Your task to perform on an android device: View the shopping cart on costco.com. Search for "rayovac triple a" on costco.com, select the first entry, add it to the cart, then select checkout. Image 0: 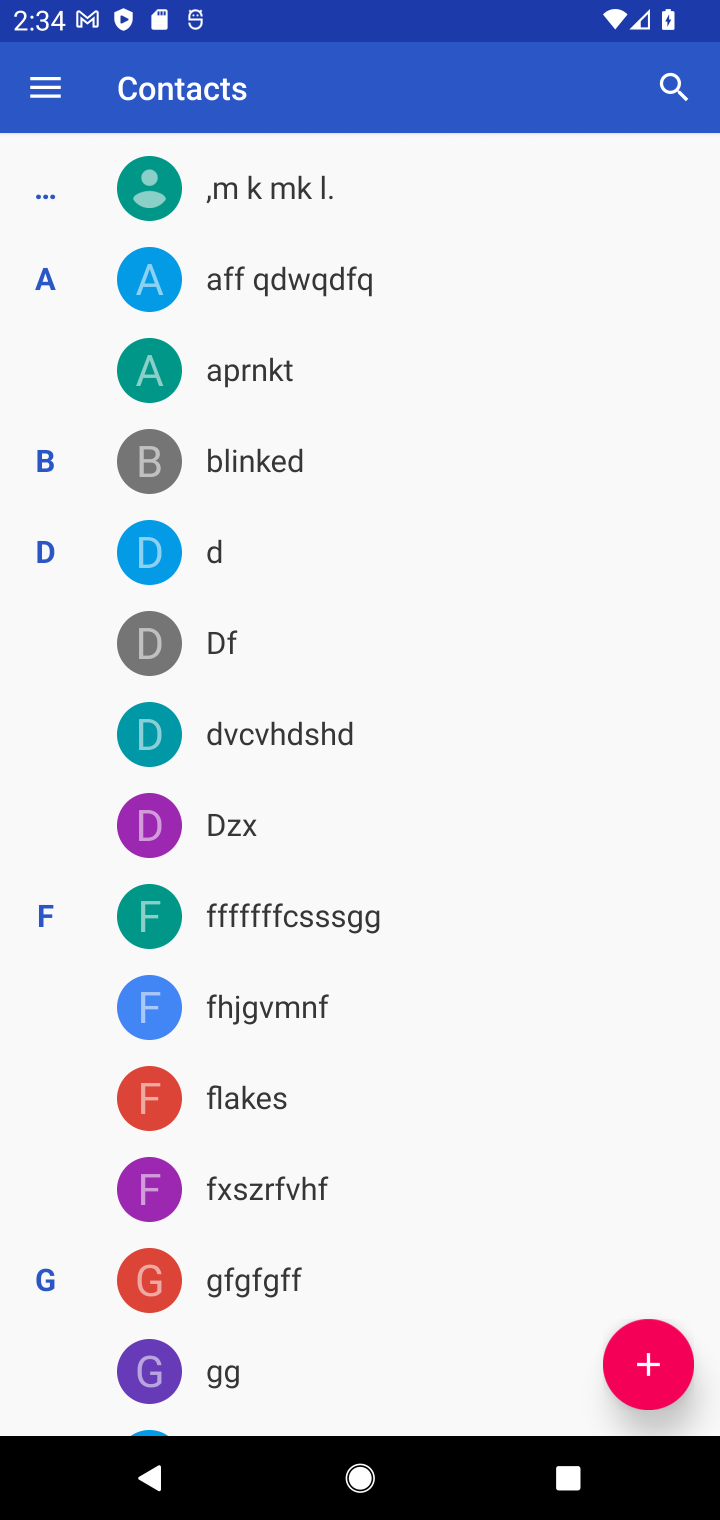
Step 0: press home button
Your task to perform on an android device: View the shopping cart on costco.com. Search for "rayovac triple a" on costco.com, select the first entry, add it to the cart, then select checkout. Image 1: 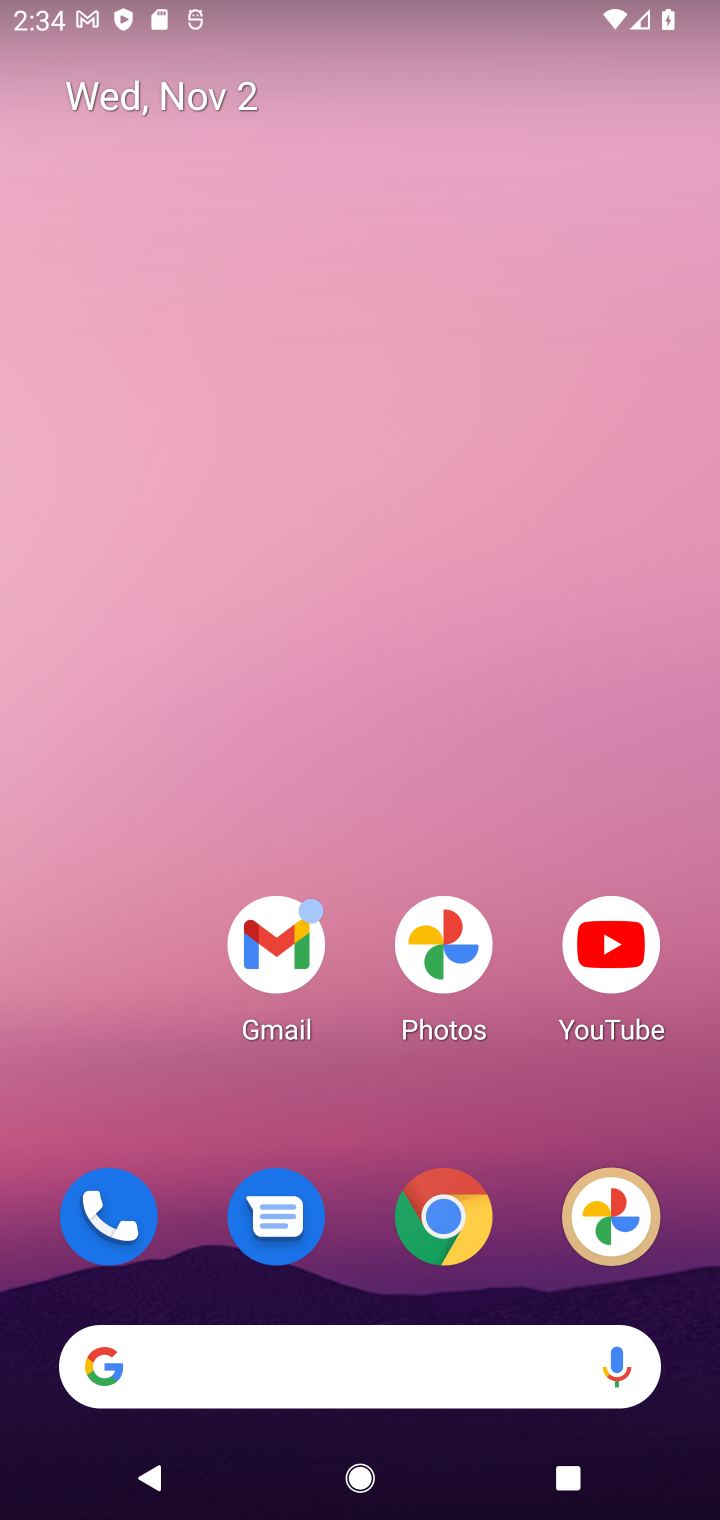
Step 1: click (438, 1212)
Your task to perform on an android device: View the shopping cart on costco.com. Search for "rayovac triple a" on costco.com, select the first entry, add it to the cart, then select checkout. Image 2: 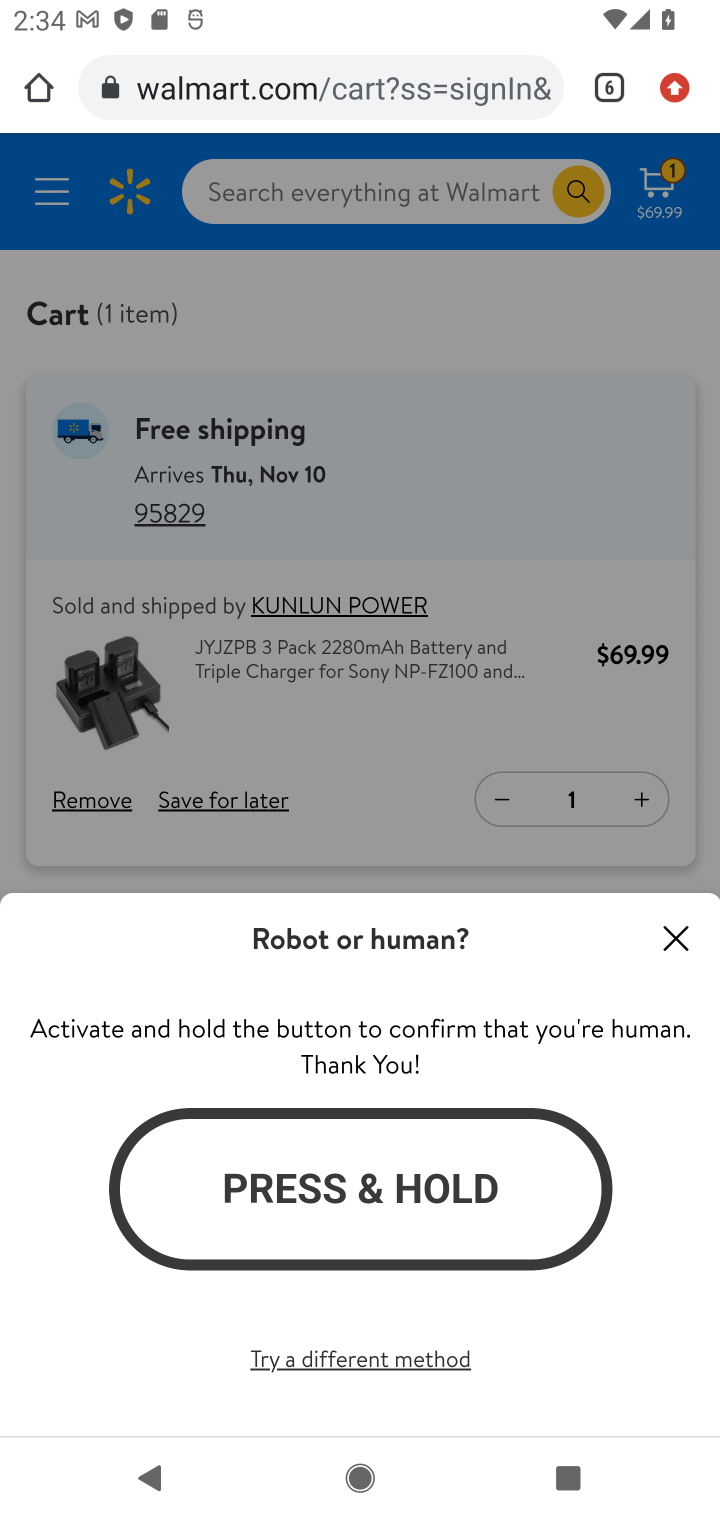
Step 2: click (608, 86)
Your task to perform on an android device: View the shopping cart on costco.com. Search for "rayovac triple a" on costco.com, select the first entry, add it to the cart, then select checkout. Image 3: 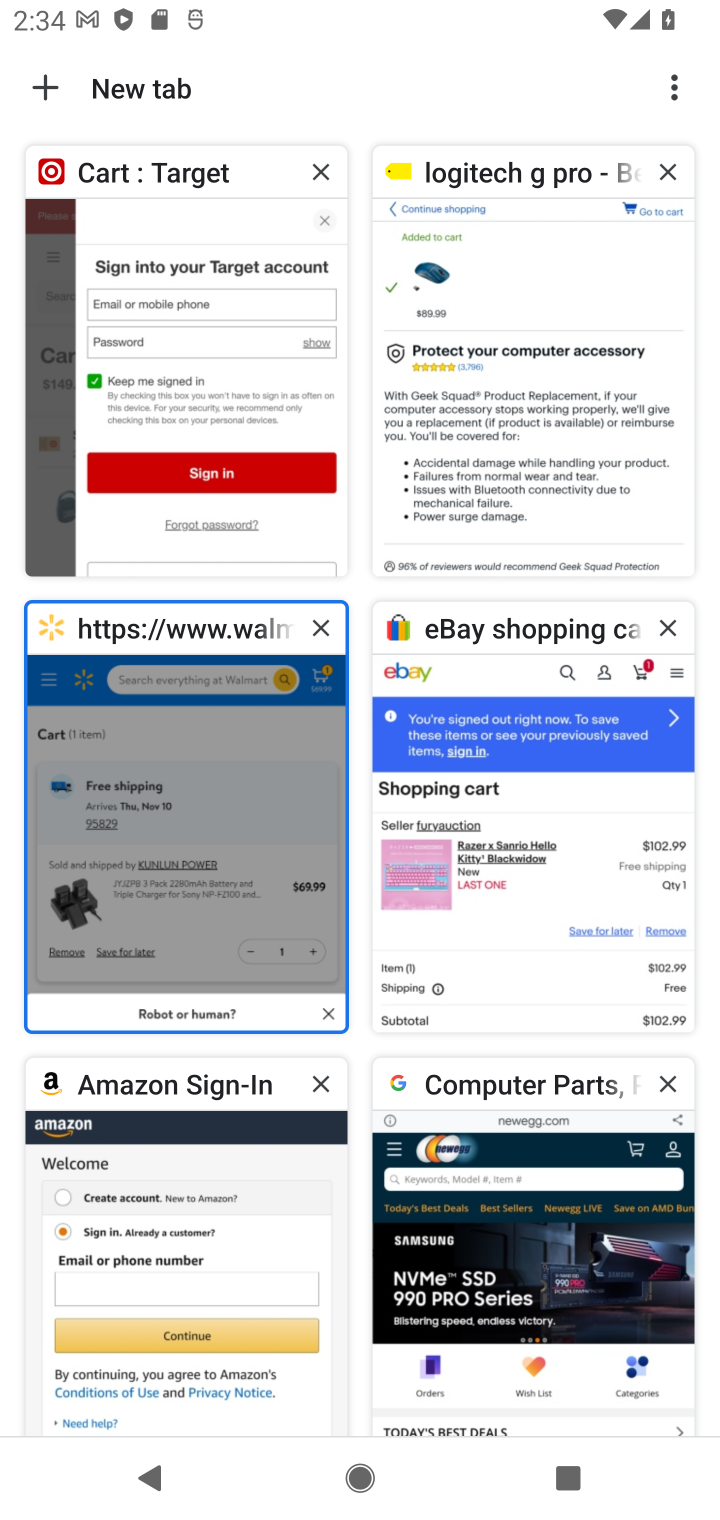
Step 3: click (33, 88)
Your task to perform on an android device: View the shopping cart on costco.com. Search for "rayovac triple a" on costco.com, select the first entry, add it to the cart, then select checkout. Image 4: 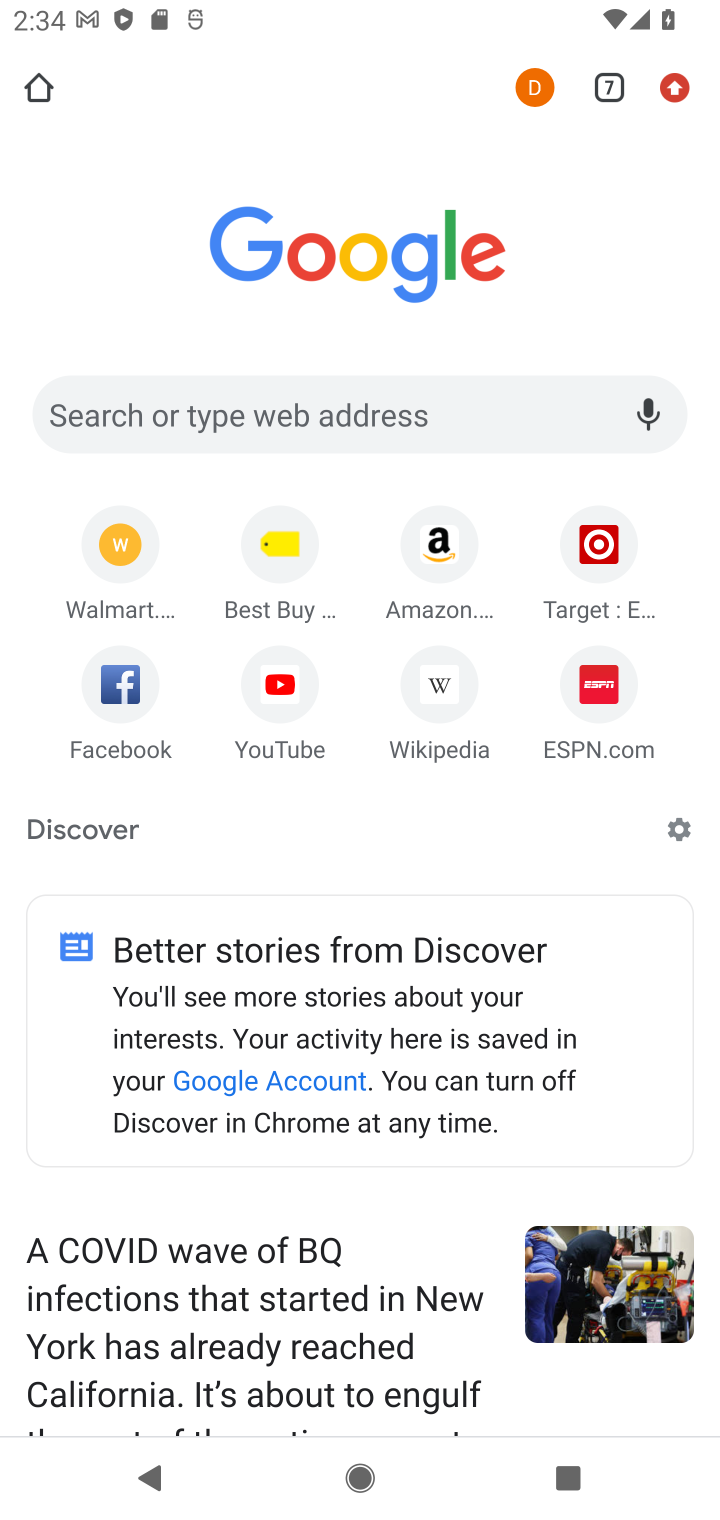
Step 4: click (183, 402)
Your task to perform on an android device: View the shopping cart on costco.com. Search for "rayovac triple a" on costco.com, select the first entry, add it to the cart, then select checkout. Image 5: 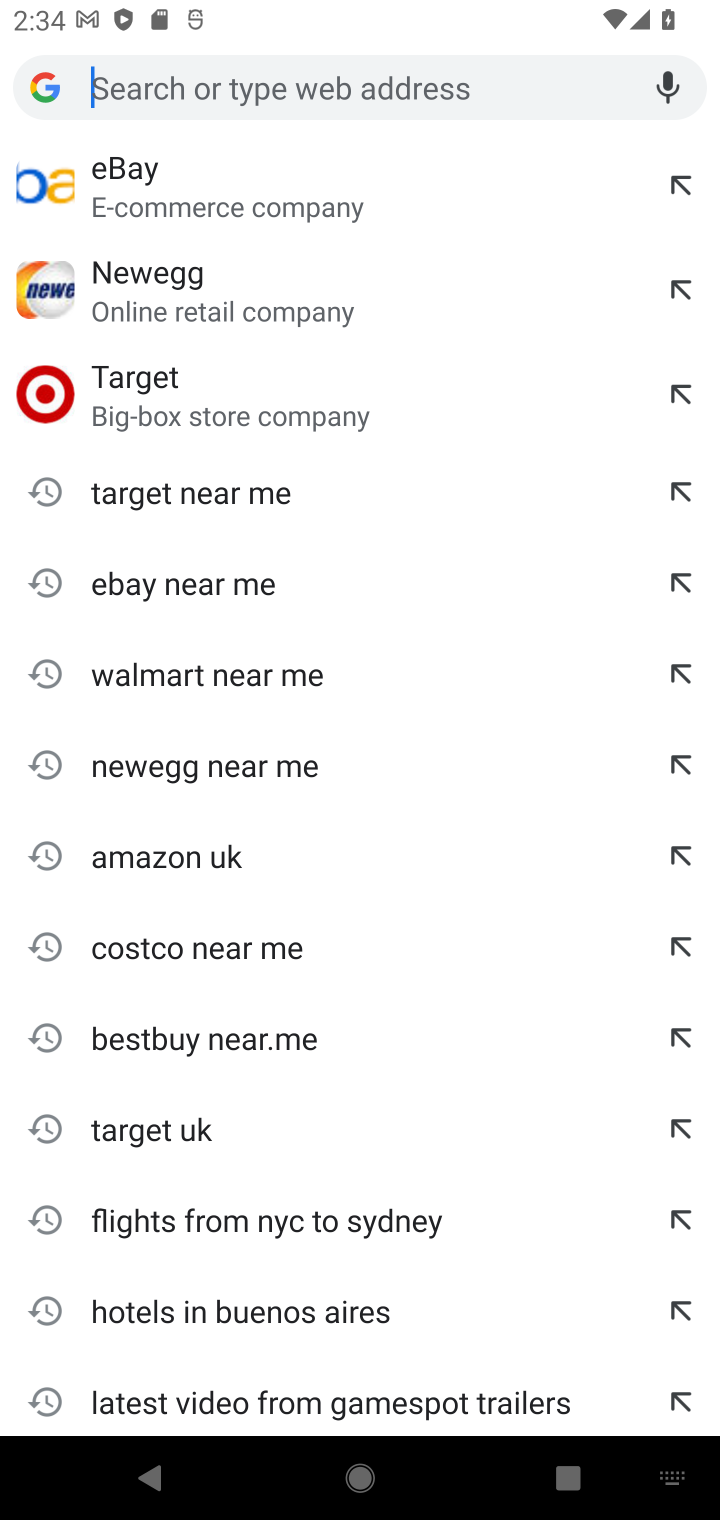
Step 5: type "costco"
Your task to perform on an android device: View the shopping cart on costco.com. Search for "rayovac triple a" on costco.com, select the first entry, add it to the cart, then select checkout. Image 6: 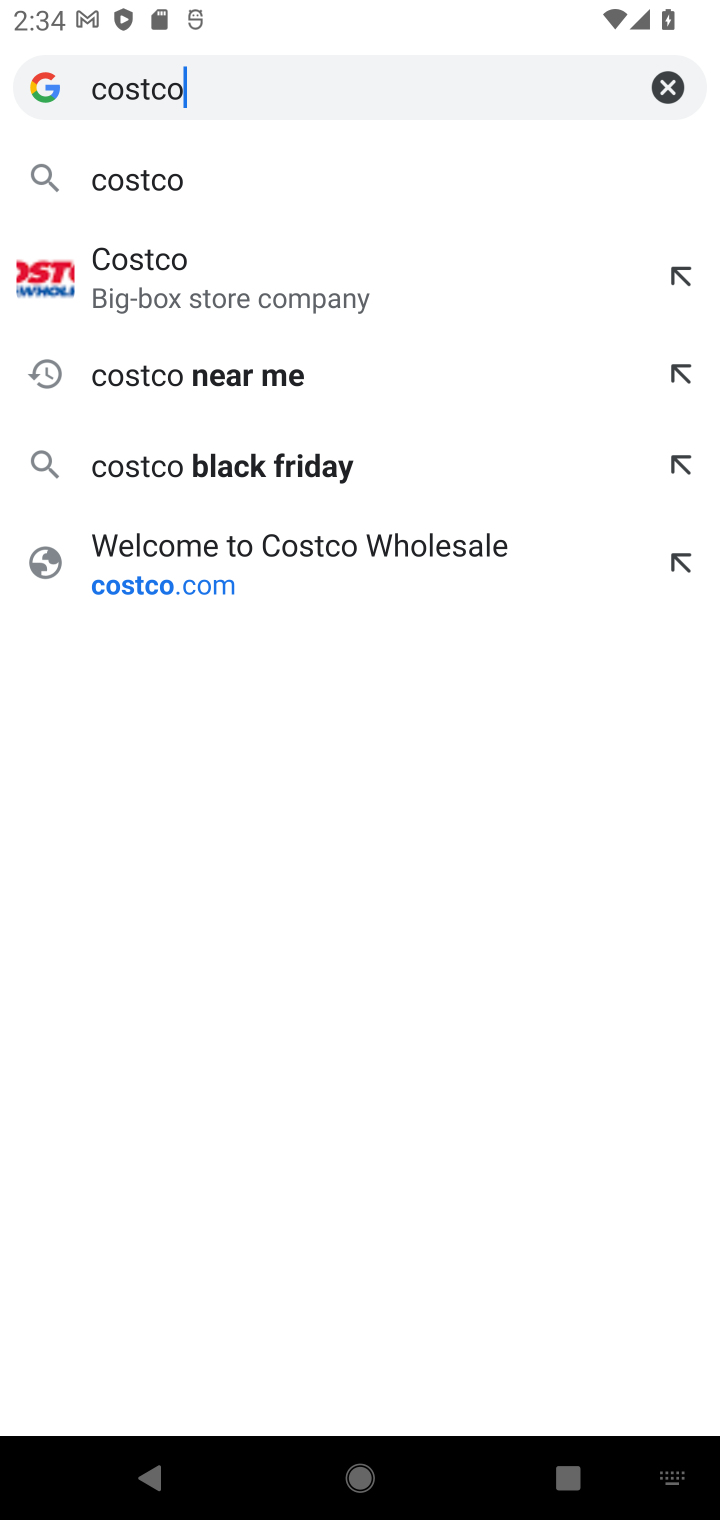
Step 6: click (193, 257)
Your task to perform on an android device: View the shopping cart on costco.com. Search for "rayovac triple a" on costco.com, select the first entry, add it to the cart, then select checkout. Image 7: 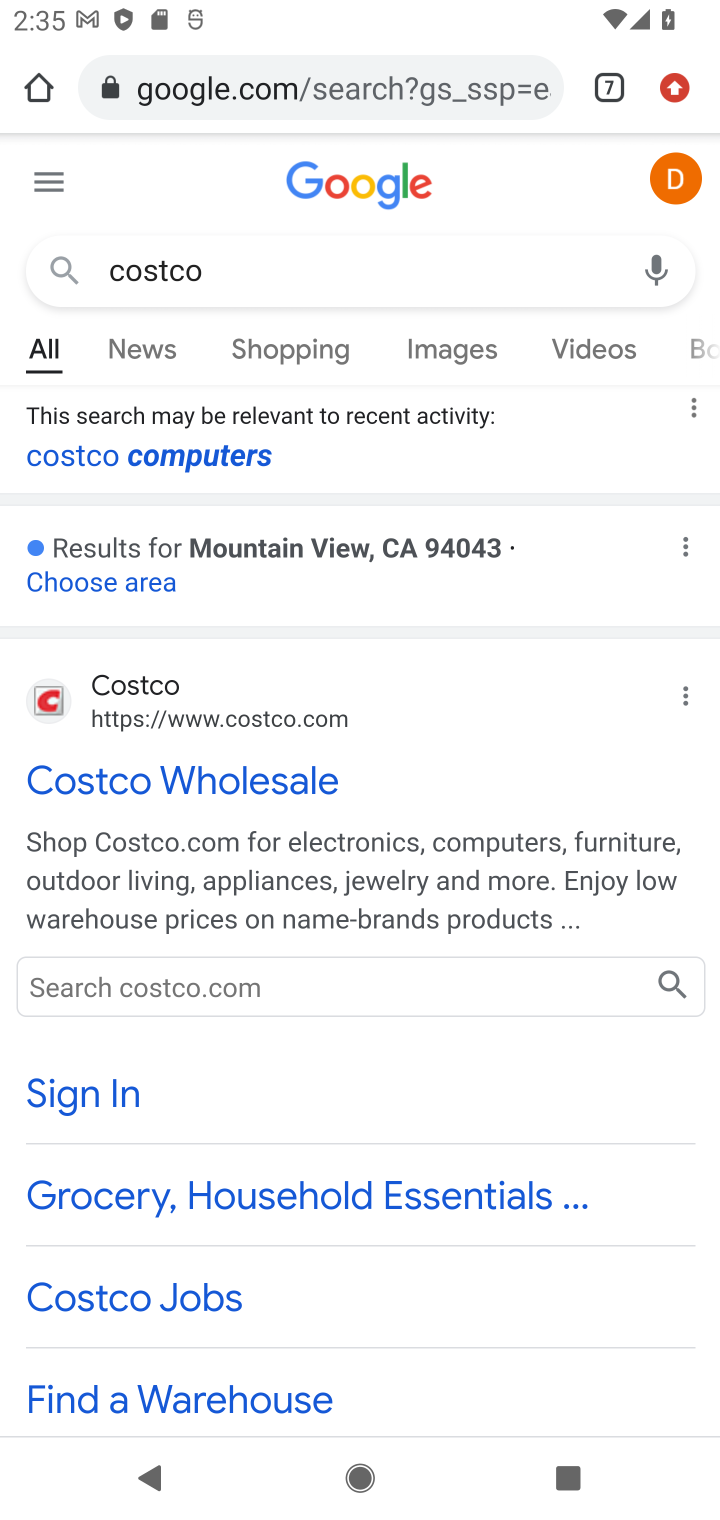
Step 7: click (173, 987)
Your task to perform on an android device: View the shopping cart on costco.com. Search for "rayovac triple a" on costco.com, select the first entry, add it to the cart, then select checkout. Image 8: 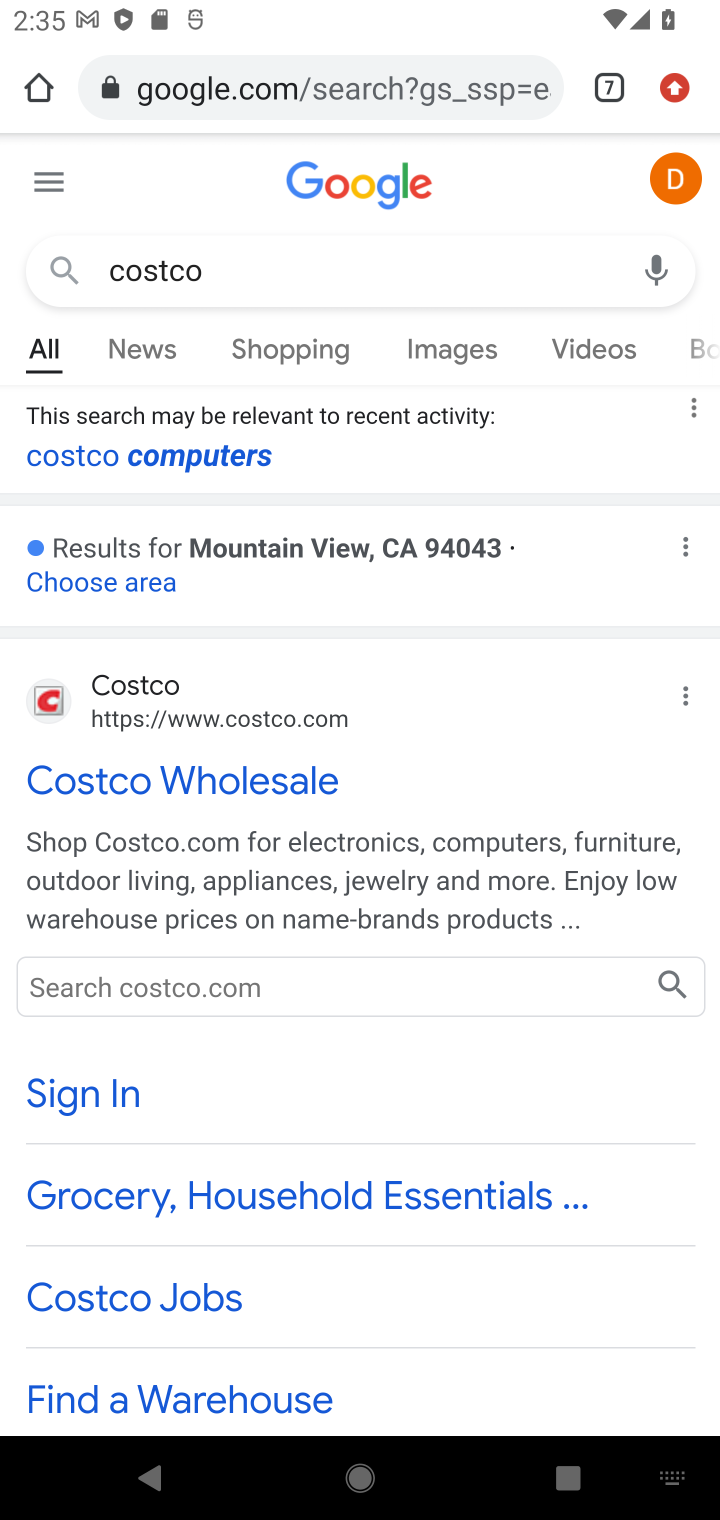
Step 8: type "rayovac triple a battery"
Your task to perform on an android device: View the shopping cart on costco.com. Search for "rayovac triple a" on costco.com, select the first entry, add it to the cart, then select checkout. Image 9: 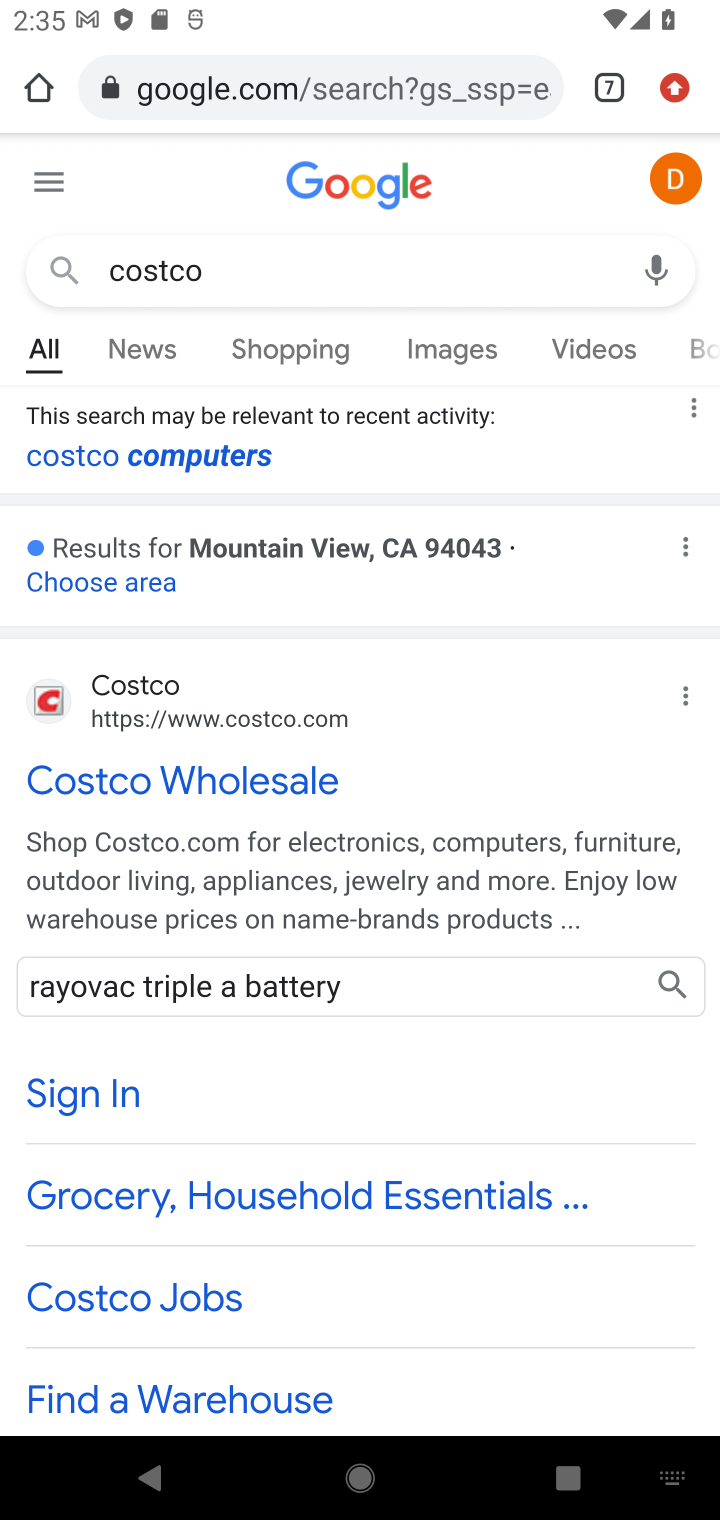
Step 9: click (667, 978)
Your task to perform on an android device: View the shopping cart on costco.com. Search for "rayovac triple a" on costco.com, select the first entry, add it to the cart, then select checkout. Image 10: 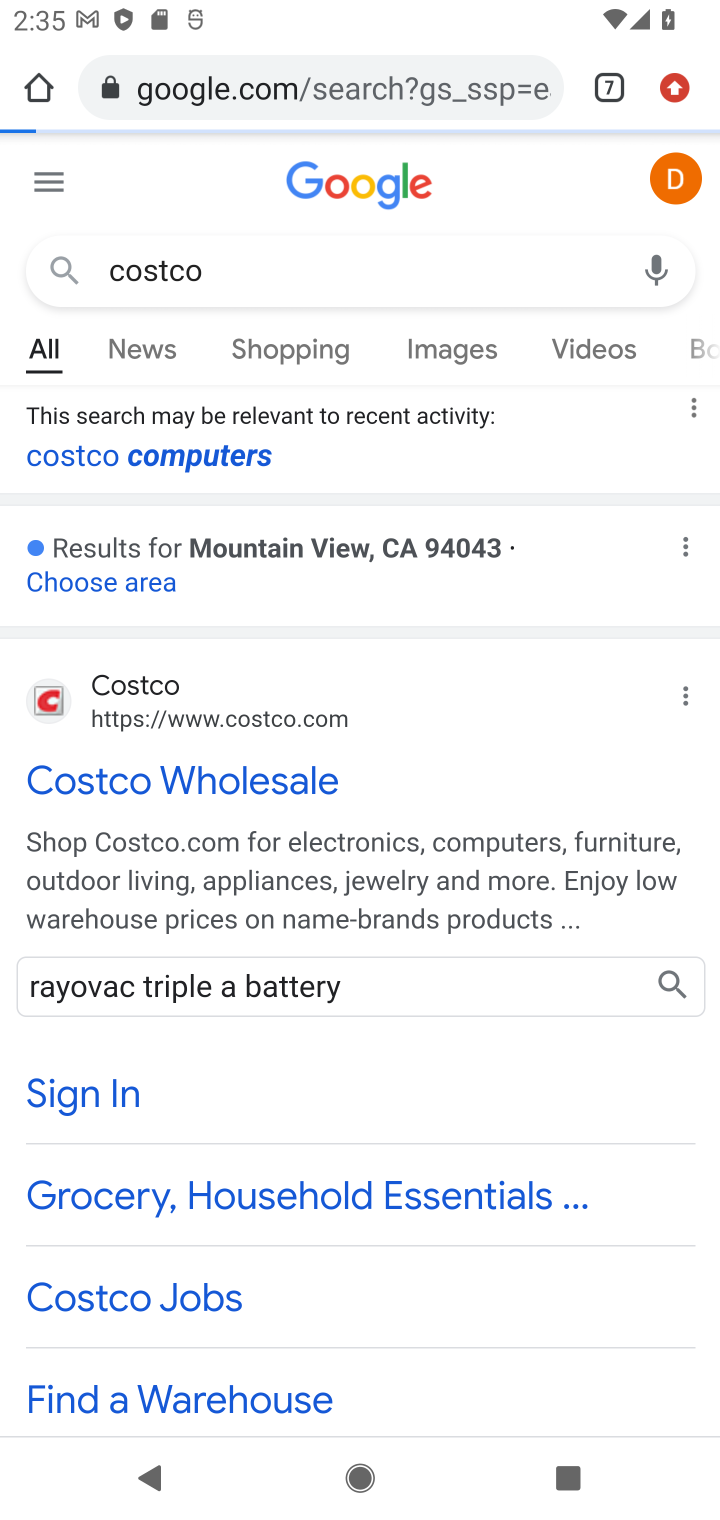
Step 10: click (667, 978)
Your task to perform on an android device: View the shopping cart on costco.com. Search for "rayovac triple a" on costco.com, select the first entry, add it to the cart, then select checkout. Image 11: 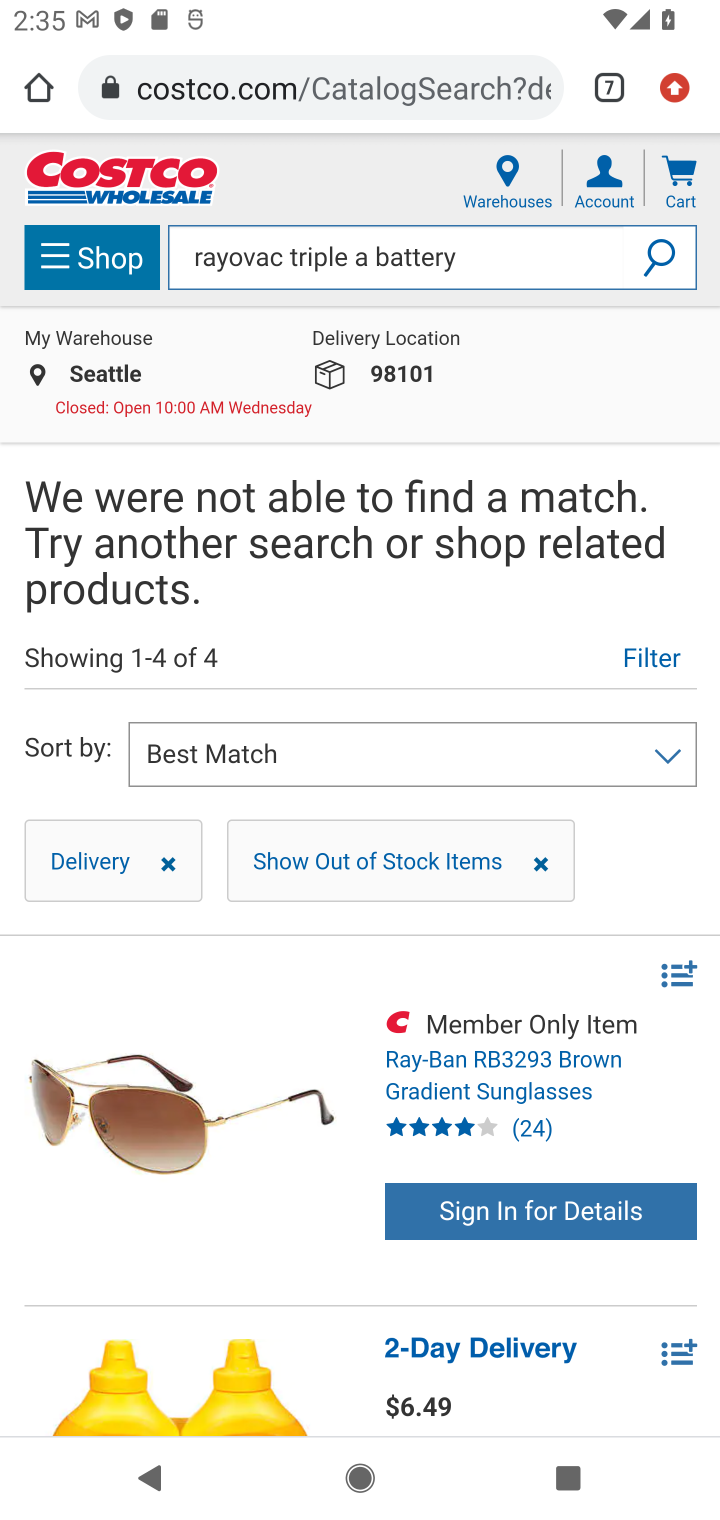
Step 11: drag from (317, 1184) to (326, 602)
Your task to perform on an android device: View the shopping cart on costco.com. Search for "rayovac triple a" on costco.com, select the first entry, add it to the cart, then select checkout. Image 12: 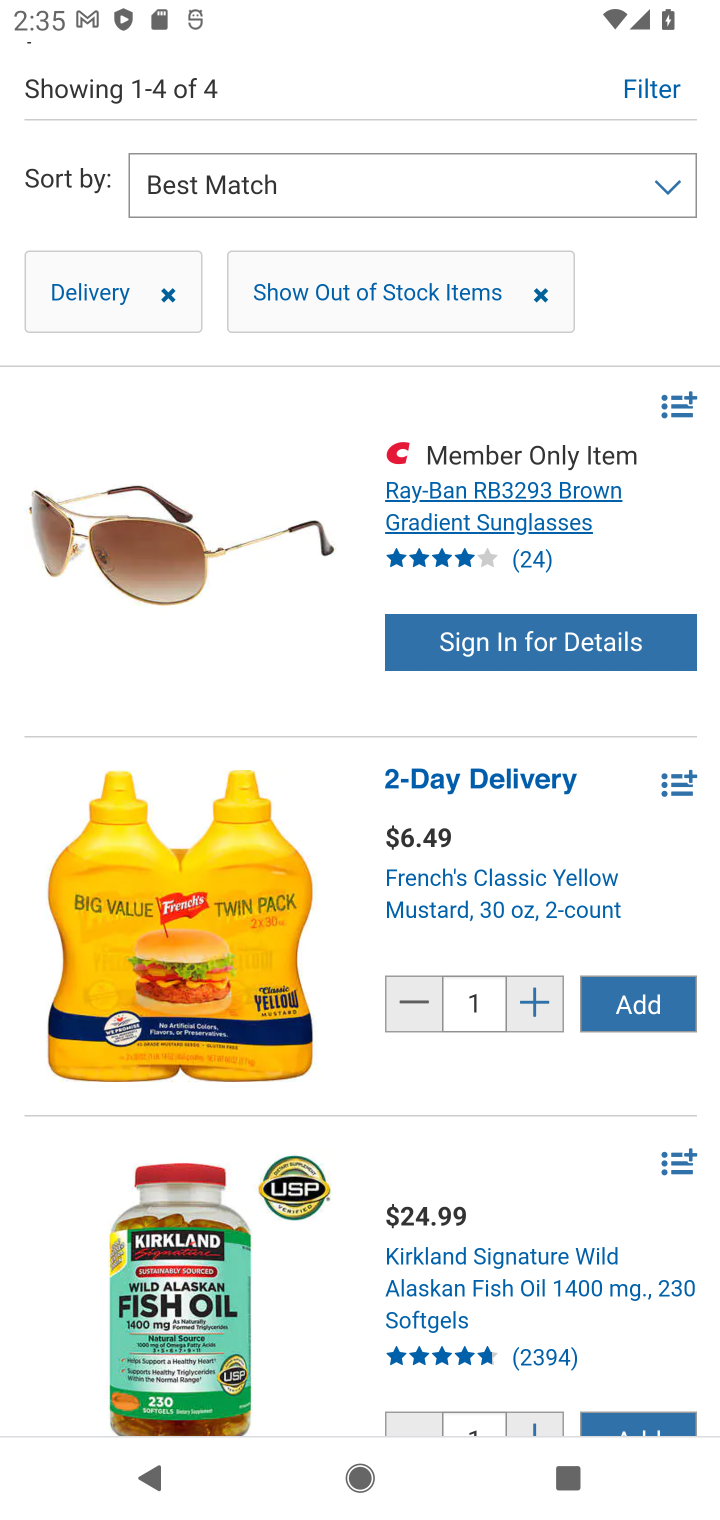
Step 12: drag from (284, 833) to (308, 264)
Your task to perform on an android device: View the shopping cart on costco.com. Search for "rayovac triple a" on costco.com, select the first entry, add it to the cart, then select checkout. Image 13: 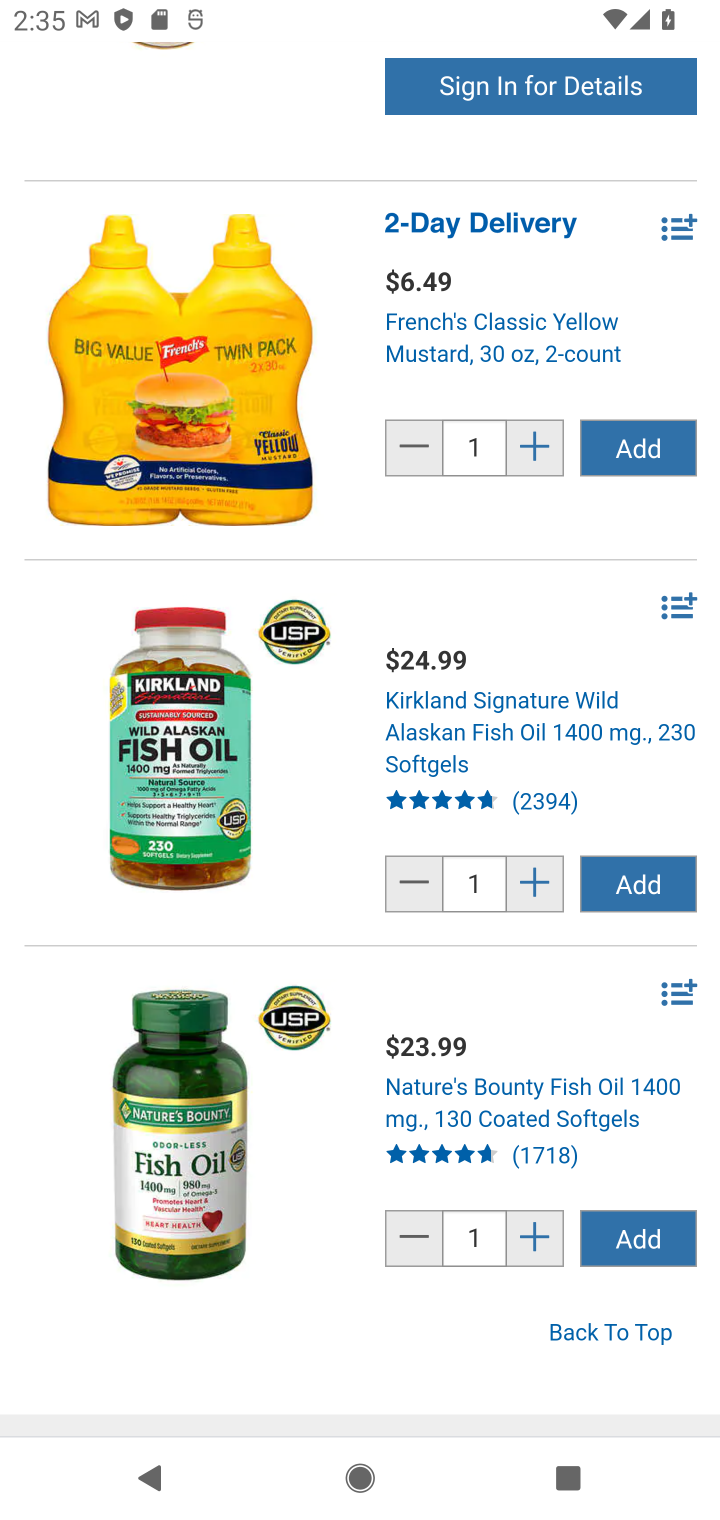
Step 13: drag from (317, 240) to (334, 1416)
Your task to perform on an android device: View the shopping cart on costco.com. Search for "rayovac triple a" on costco.com, select the first entry, add it to the cart, then select checkout. Image 14: 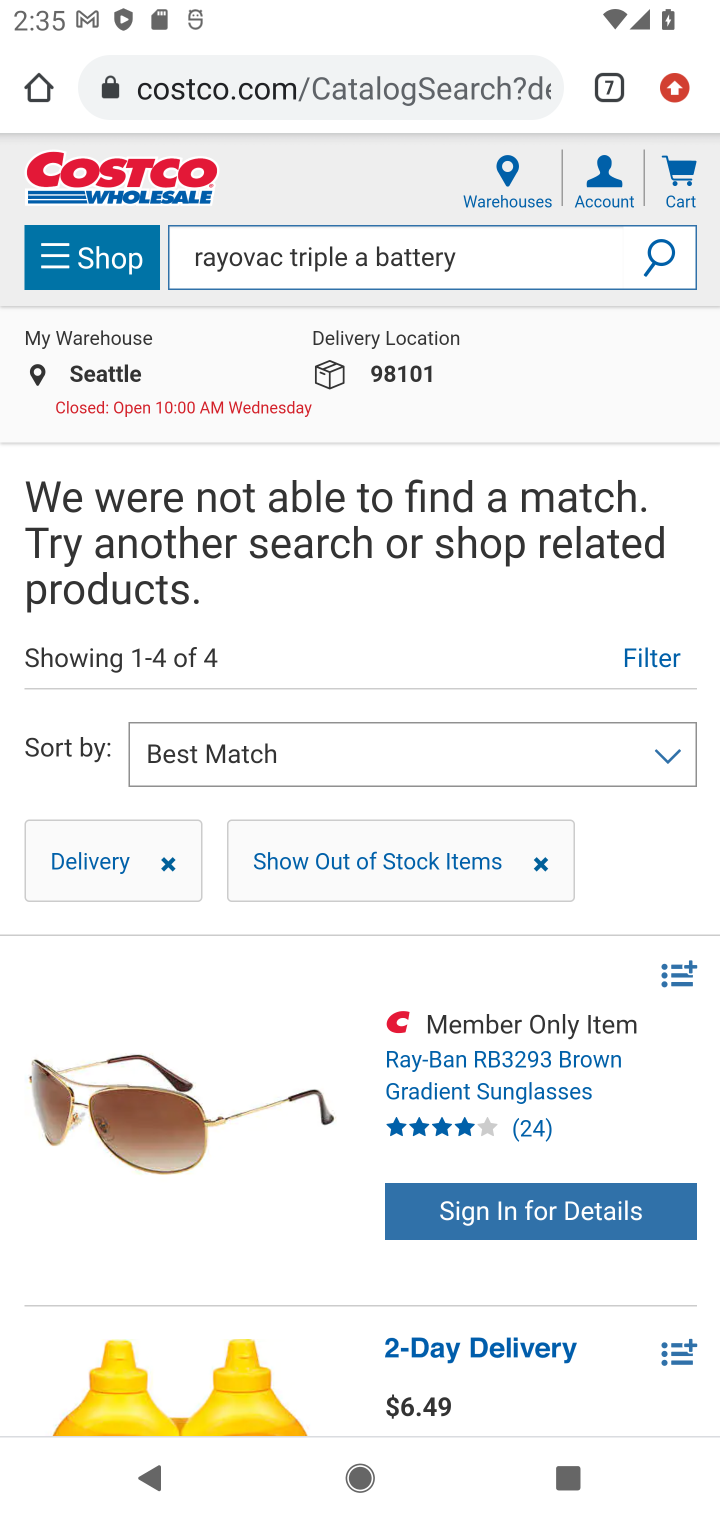
Step 14: click (650, 256)
Your task to perform on an android device: View the shopping cart on costco.com. Search for "rayovac triple a" on costco.com, select the first entry, add it to the cart, then select checkout. Image 15: 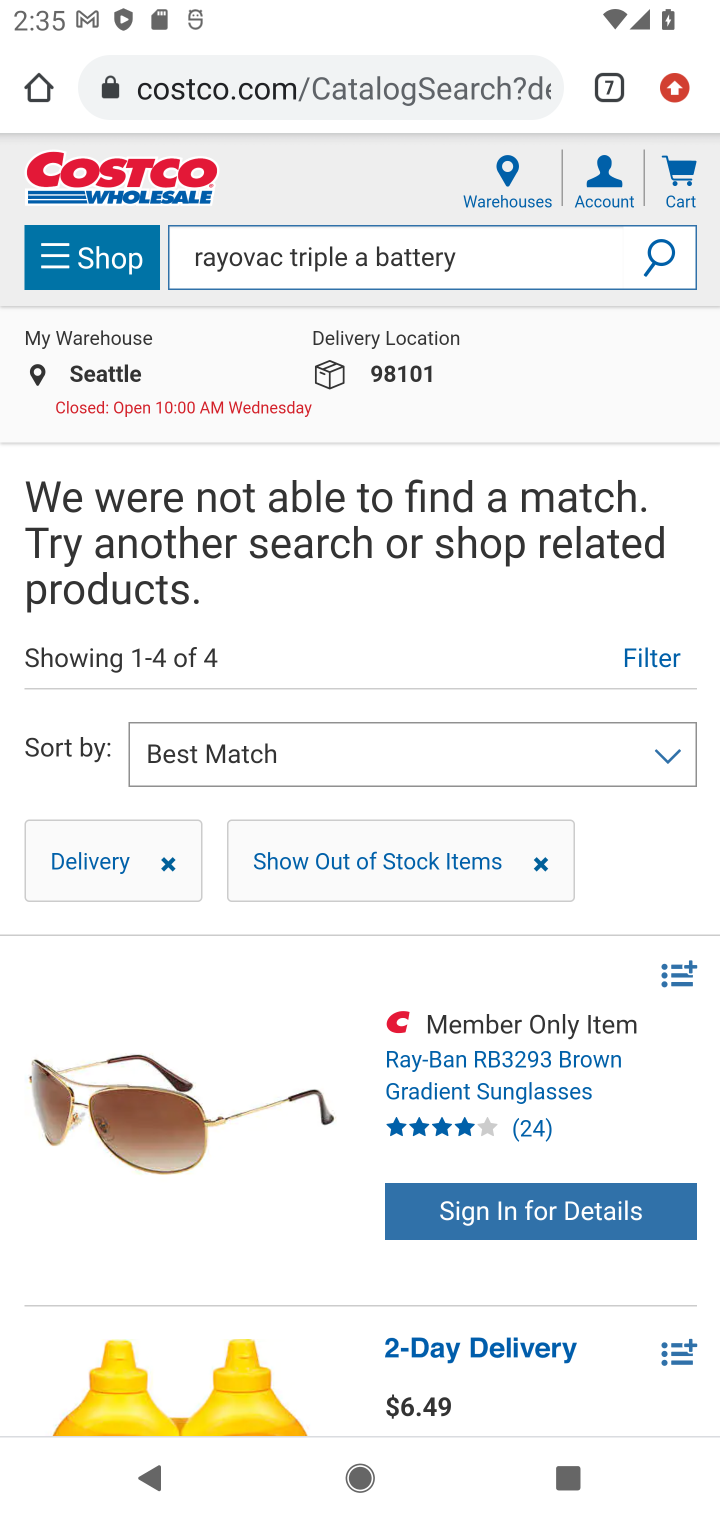
Step 15: click (546, 248)
Your task to perform on an android device: View the shopping cart on costco.com. Search for "rayovac triple a" on costco.com, select the first entry, add it to the cart, then select checkout. Image 16: 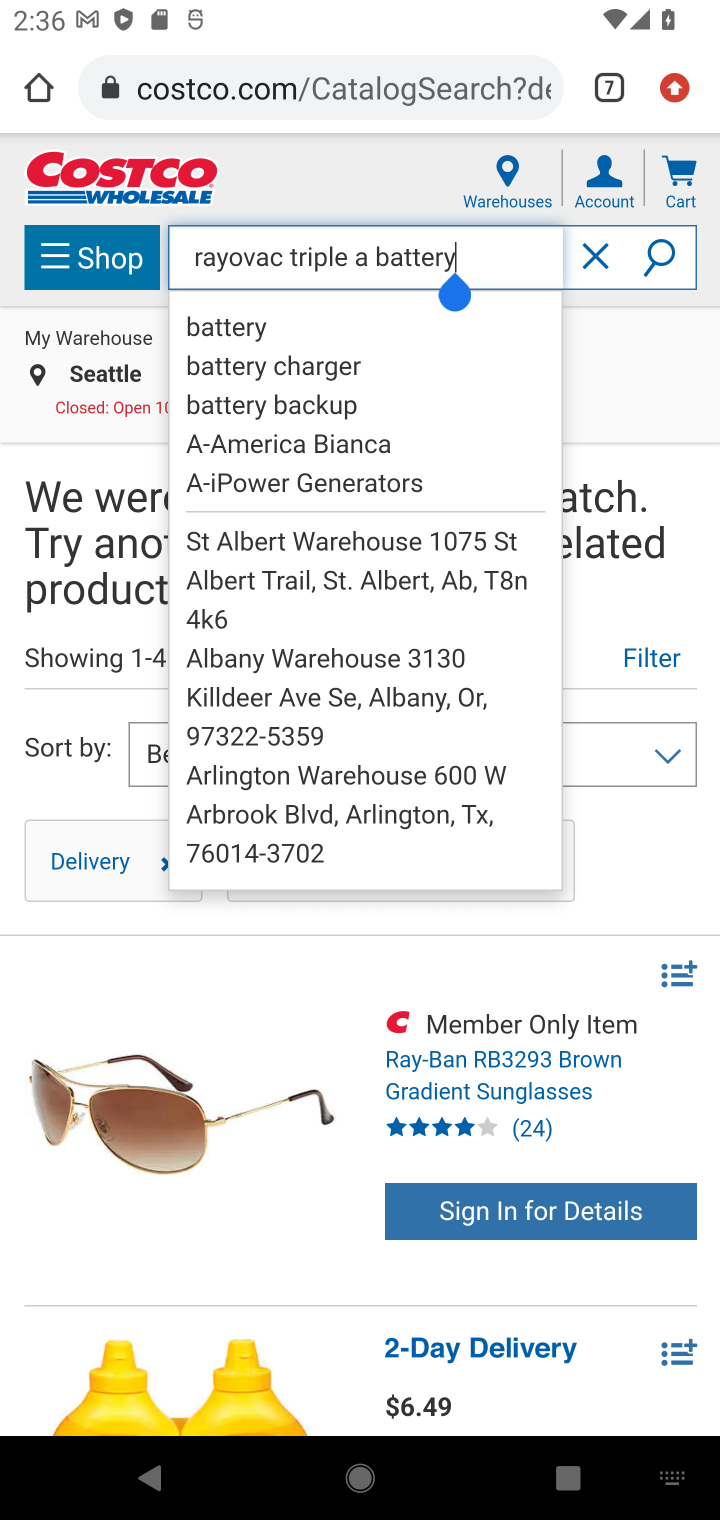
Step 16: click (593, 255)
Your task to perform on an android device: View the shopping cart on costco.com. Search for "rayovac triple a" on costco.com, select the first entry, add it to the cart, then select checkout. Image 17: 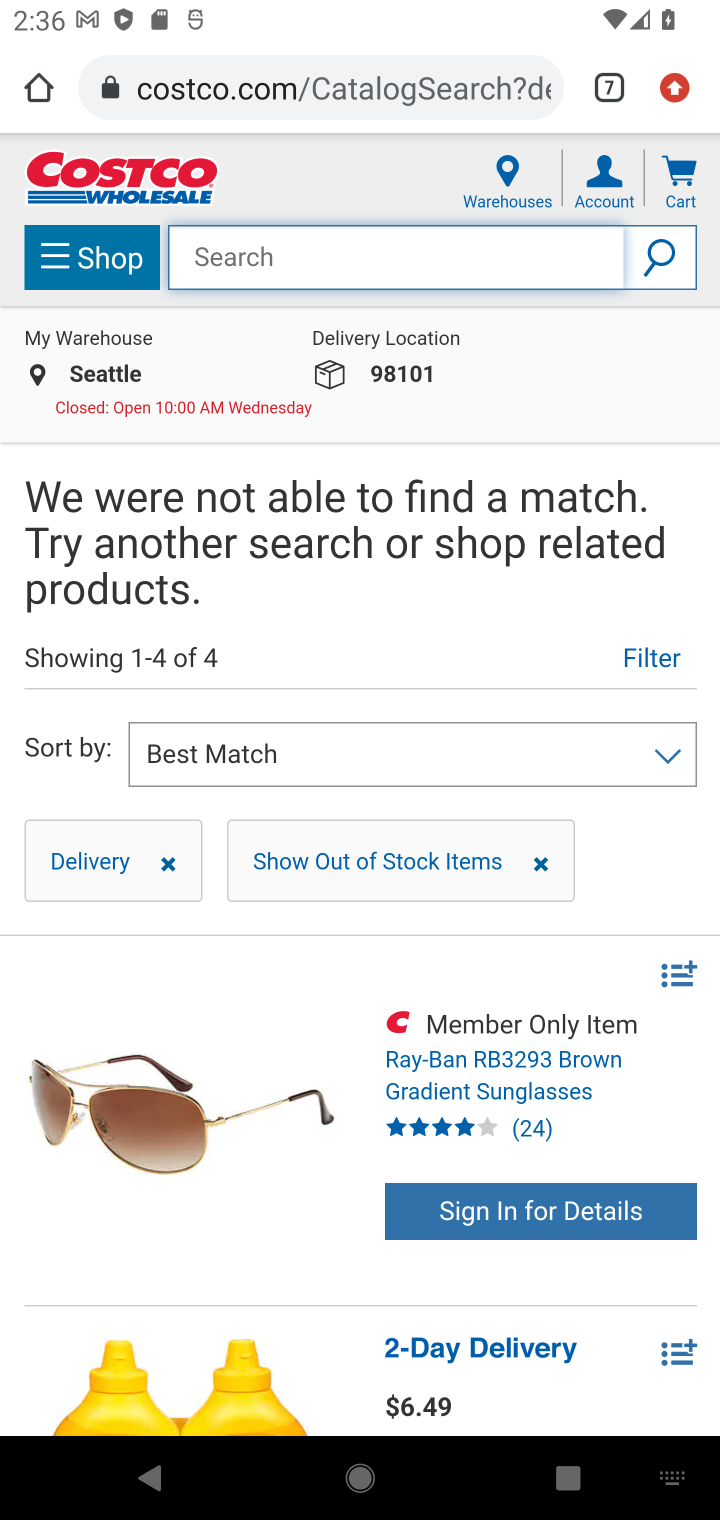
Step 17: type "rayovac triple a"
Your task to perform on an android device: View the shopping cart on costco.com. Search for "rayovac triple a" on costco.com, select the first entry, add it to the cart, then select checkout. Image 18: 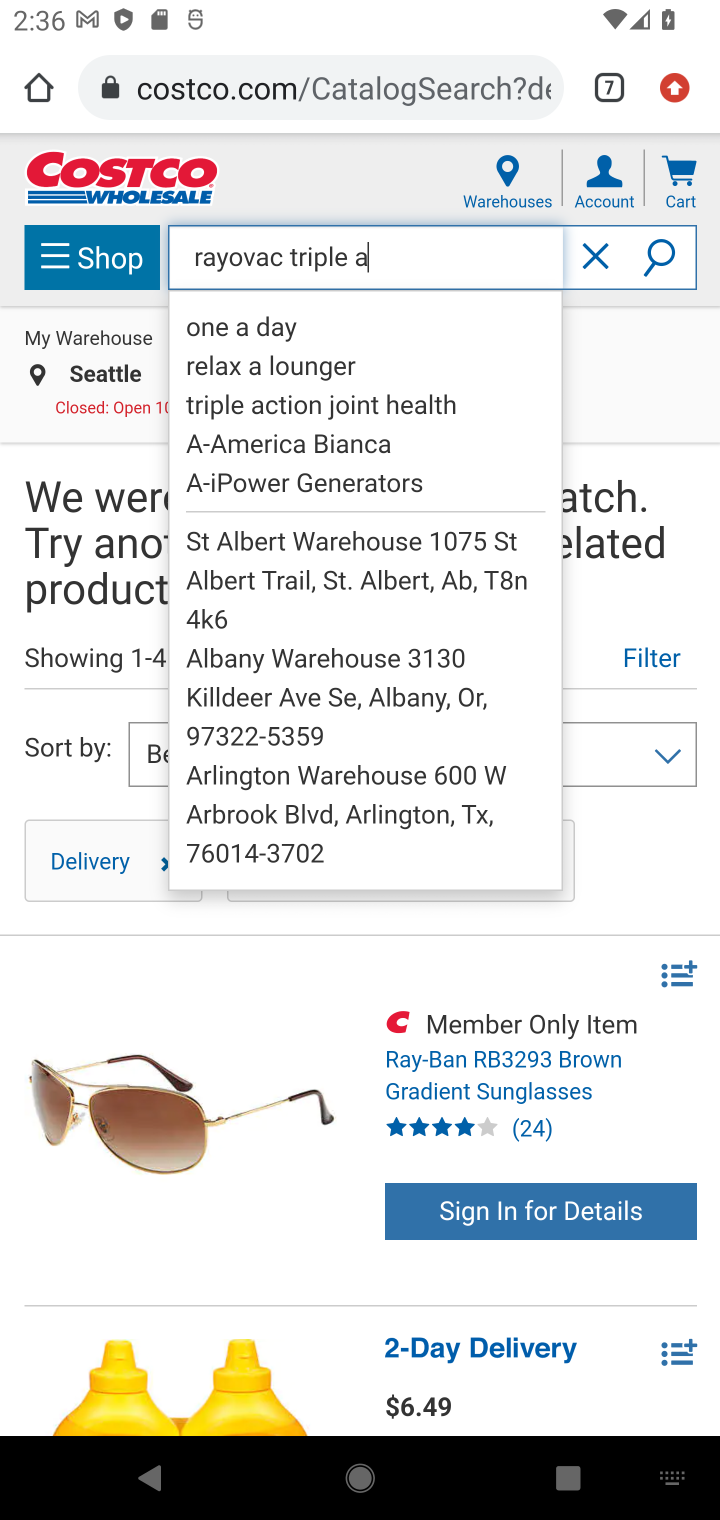
Step 18: click (597, 255)
Your task to perform on an android device: View the shopping cart on costco.com. Search for "rayovac triple a" on costco.com, select the first entry, add it to the cart, then select checkout. Image 19: 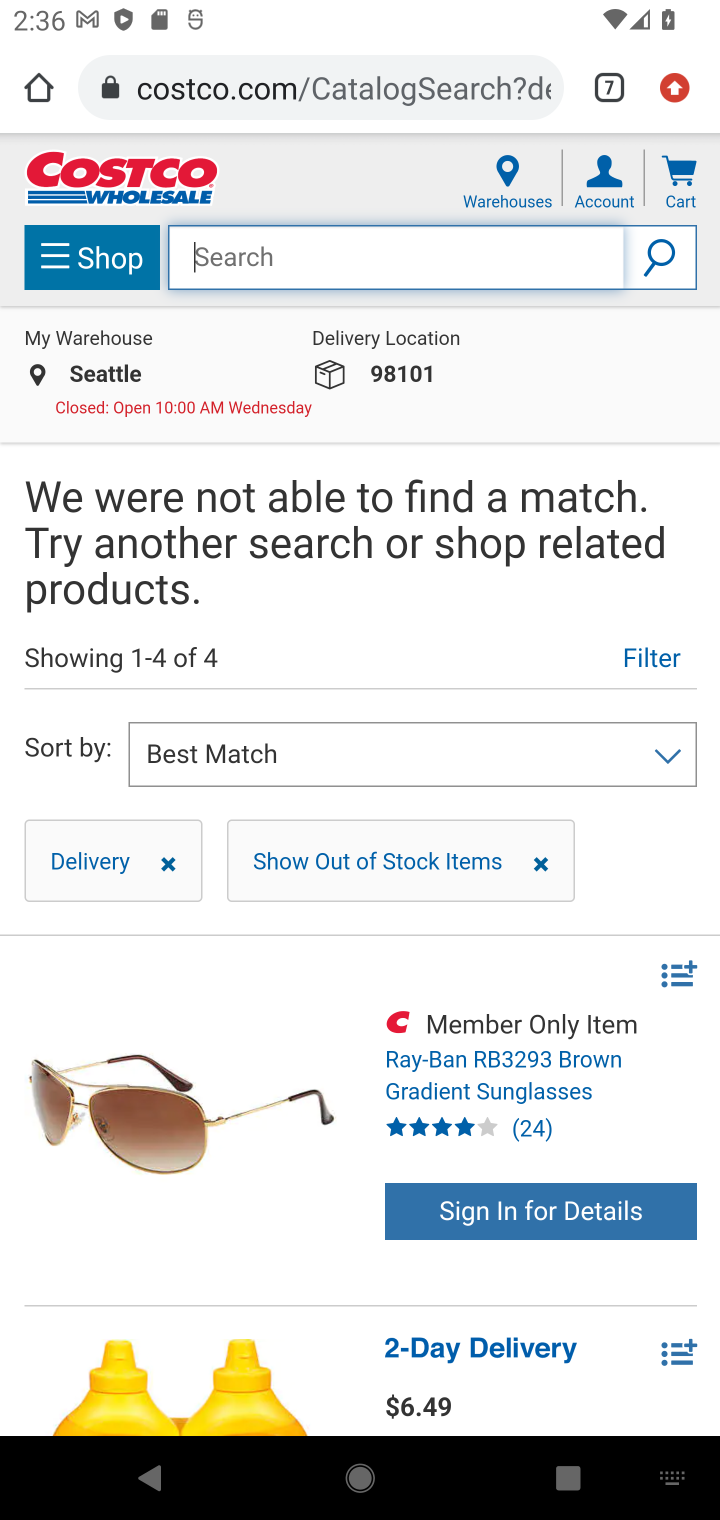
Step 19: type "rayovac "
Your task to perform on an android device: View the shopping cart on costco.com. Search for "rayovac triple a" on costco.com, select the first entry, add it to the cart, then select checkout. Image 20: 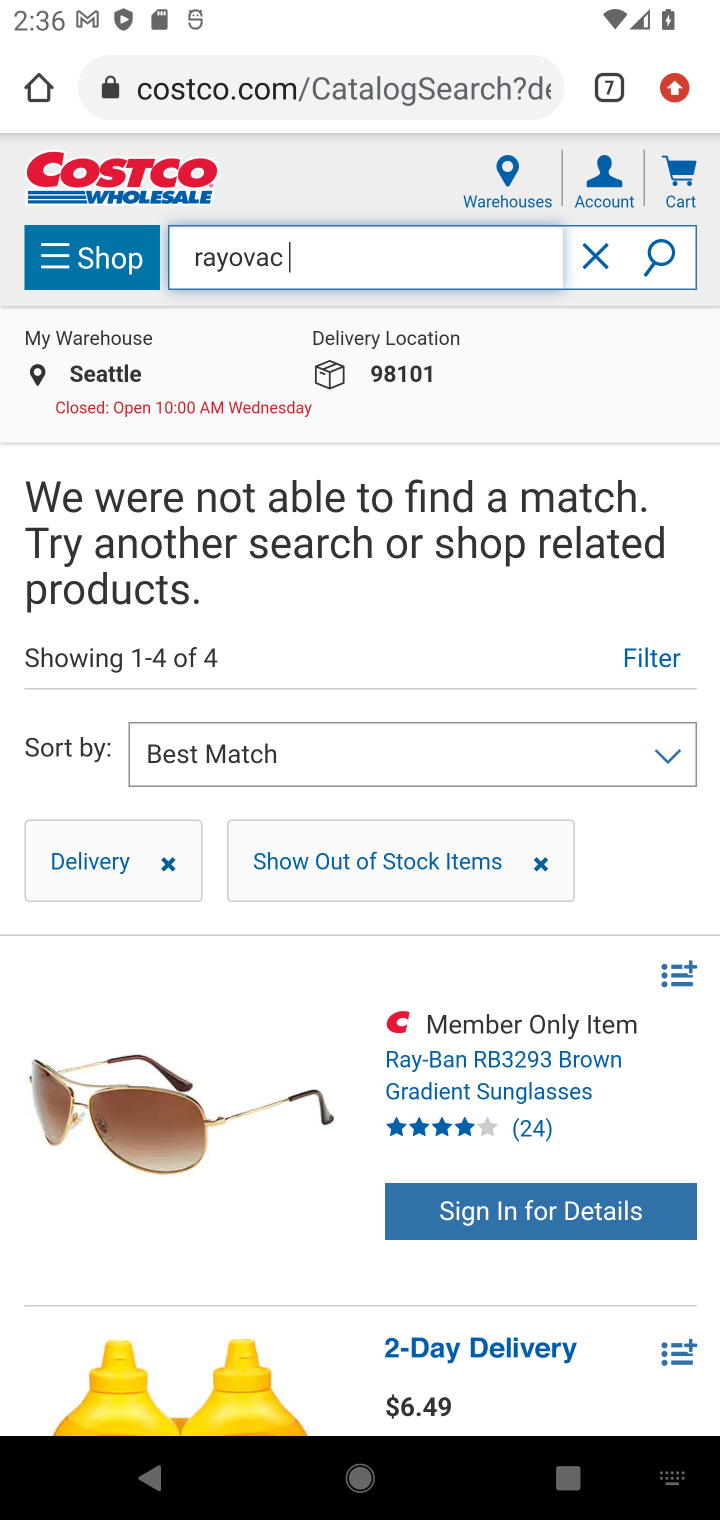
Step 20: click (661, 248)
Your task to perform on an android device: View the shopping cart on costco.com. Search for "rayovac triple a" on costco.com, select the first entry, add it to the cart, then select checkout. Image 21: 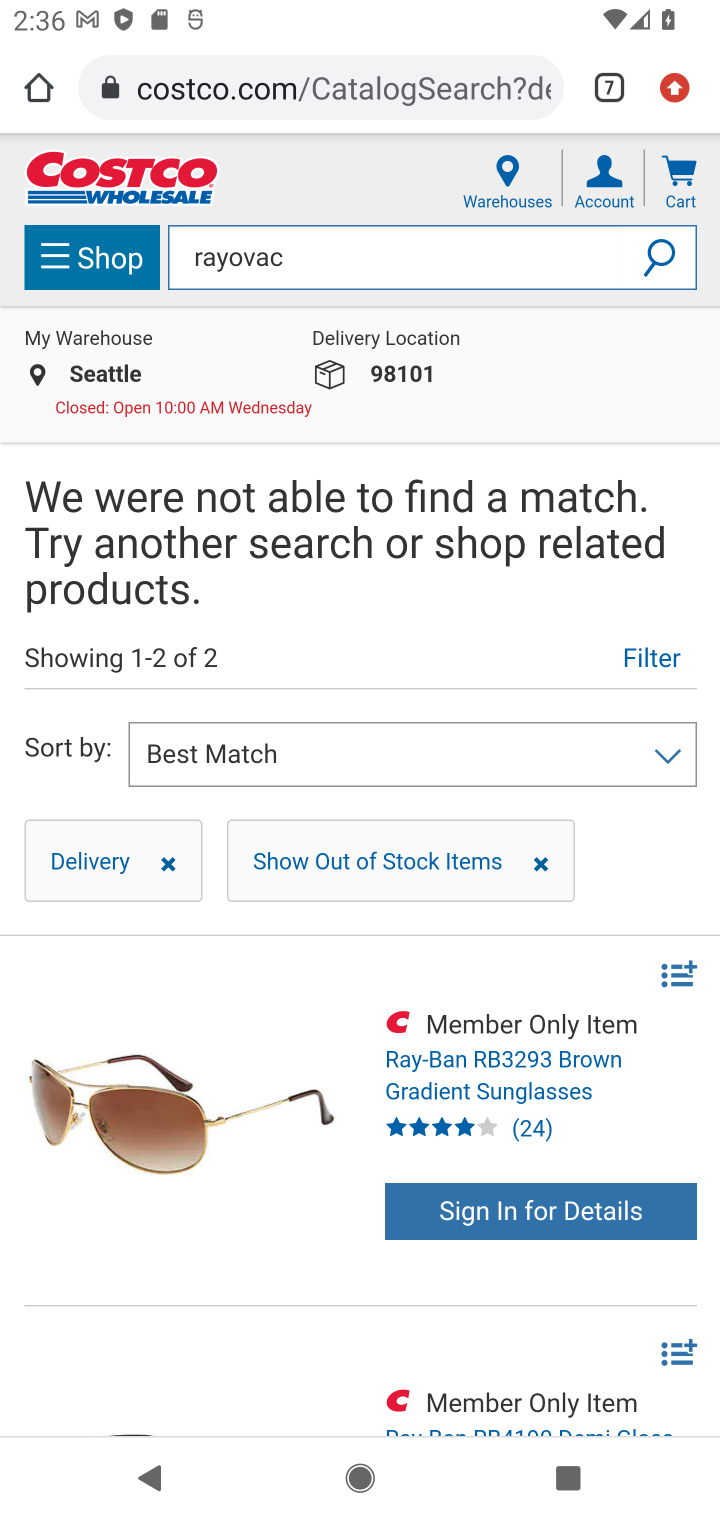
Step 21: task complete